Your task to perform on an android device: read, delete, or share a saved page in the chrome app Image 0: 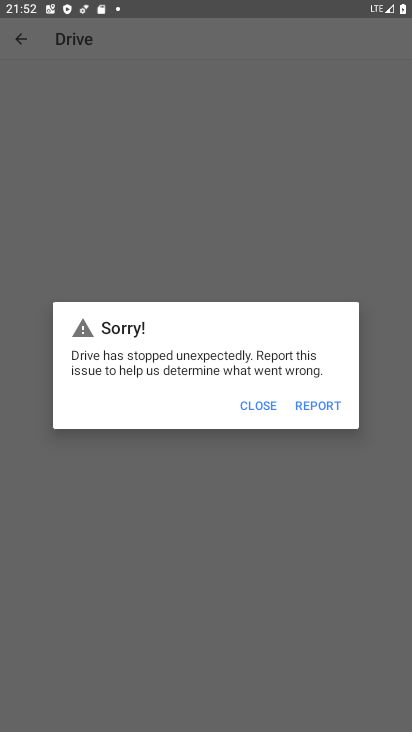
Step 0: press back button
Your task to perform on an android device: read, delete, or share a saved page in the chrome app Image 1: 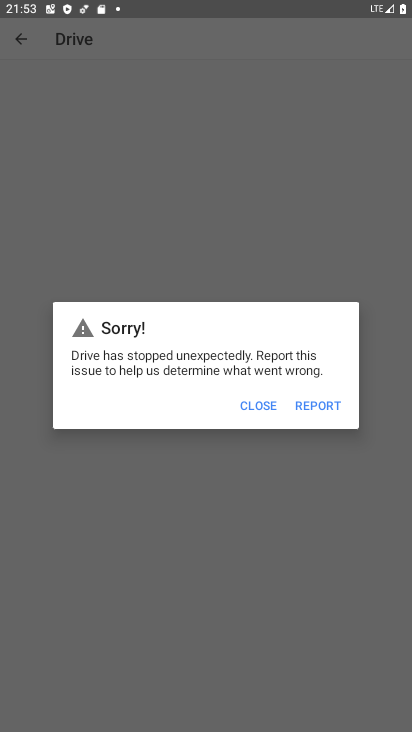
Step 1: press home button
Your task to perform on an android device: read, delete, or share a saved page in the chrome app Image 2: 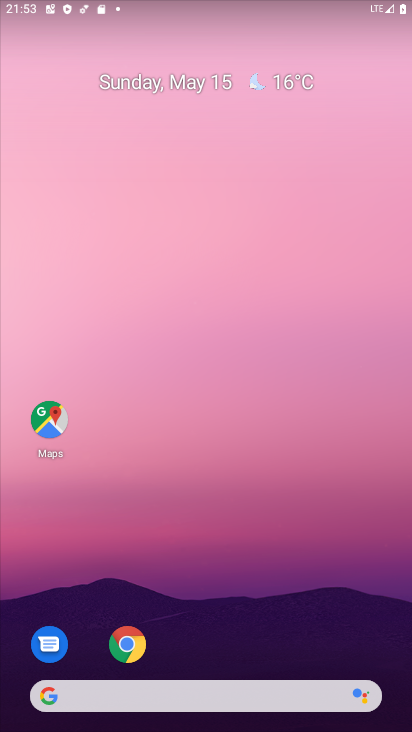
Step 2: click (123, 646)
Your task to perform on an android device: read, delete, or share a saved page in the chrome app Image 3: 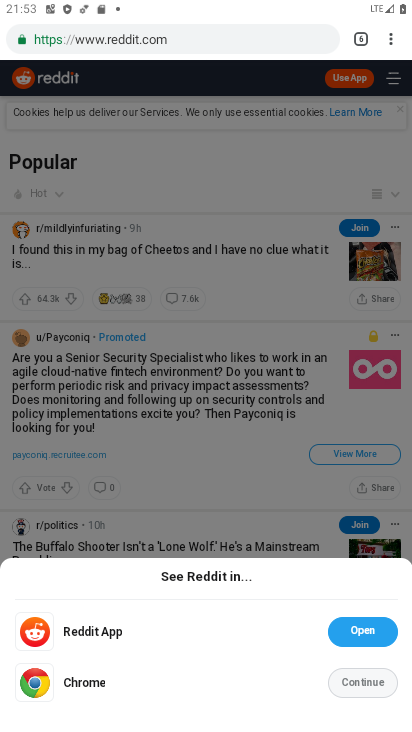
Step 3: drag from (394, 35) to (257, 256)
Your task to perform on an android device: read, delete, or share a saved page in the chrome app Image 4: 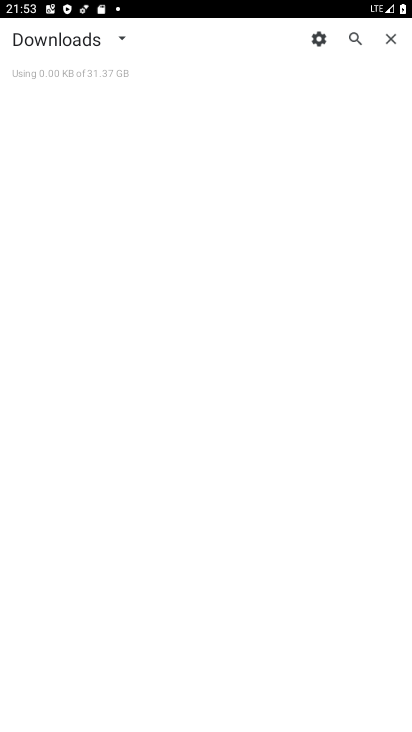
Step 4: click (119, 38)
Your task to perform on an android device: read, delete, or share a saved page in the chrome app Image 5: 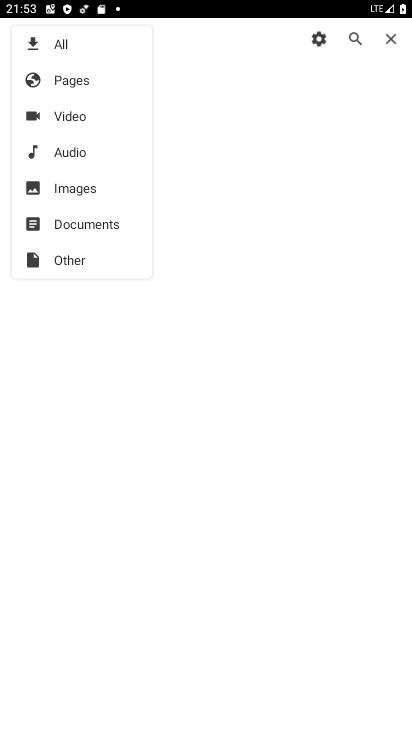
Step 5: click (70, 80)
Your task to perform on an android device: read, delete, or share a saved page in the chrome app Image 6: 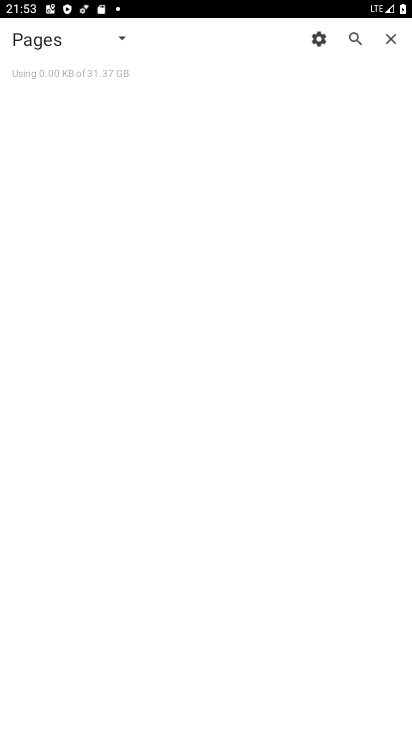
Step 6: task complete